Your task to perform on an android device: Go to Yahoo.com Image 0: 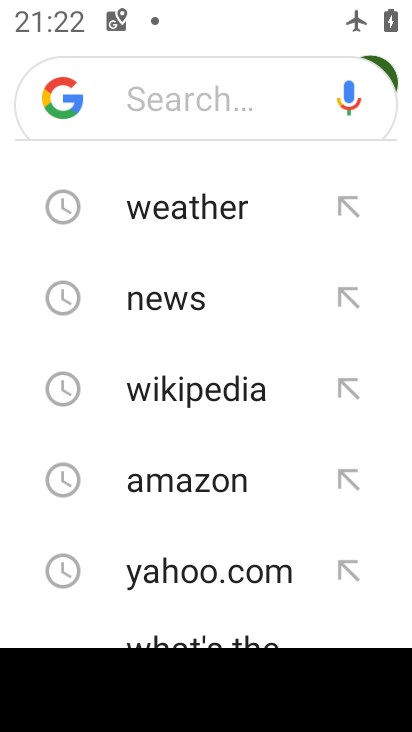
Step 0: press back button
Your task to perform on an android device: Go to Yahoo.com Image 1: 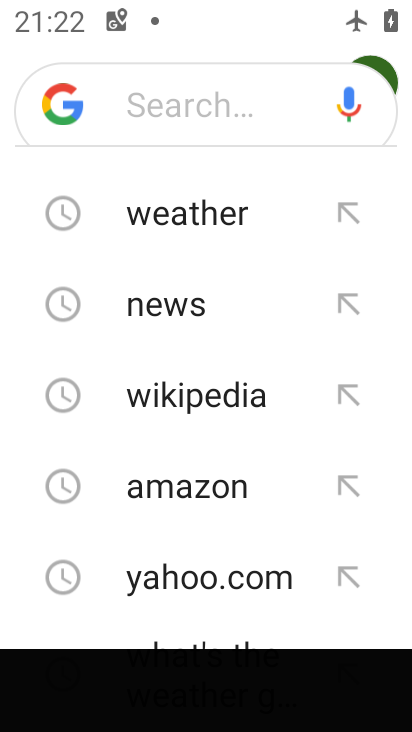
Step 1: press back button
Your task to perform on an android device: Go to Yahoo.com Image 2: 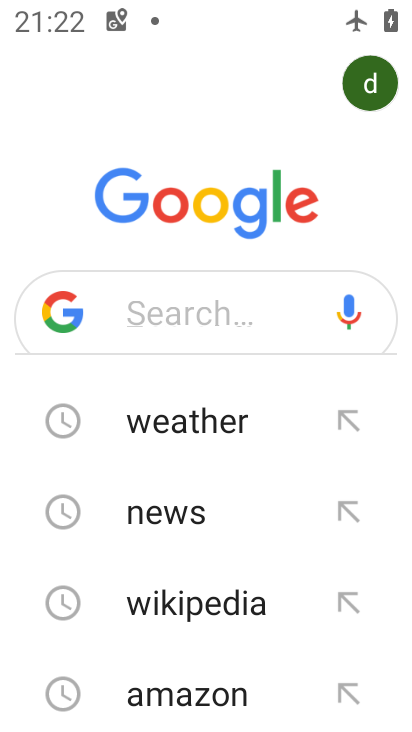
Step 2: press back button
Your task to perform on an android device: Go to Yahoo.com Image 3: 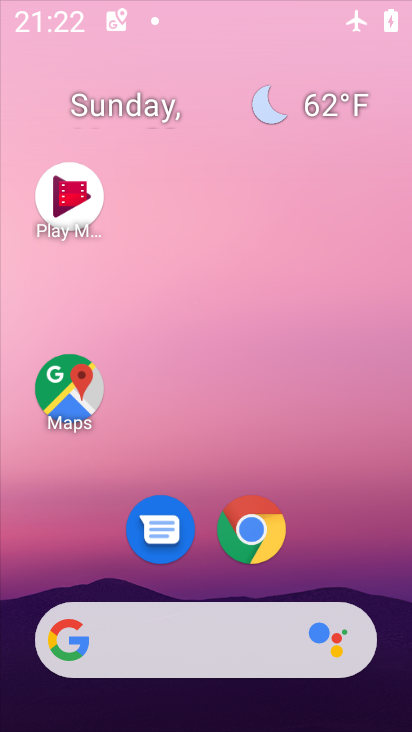
Step 3: press back button
Your task to perform on an android device: Go to Yahoo.com Image 4: 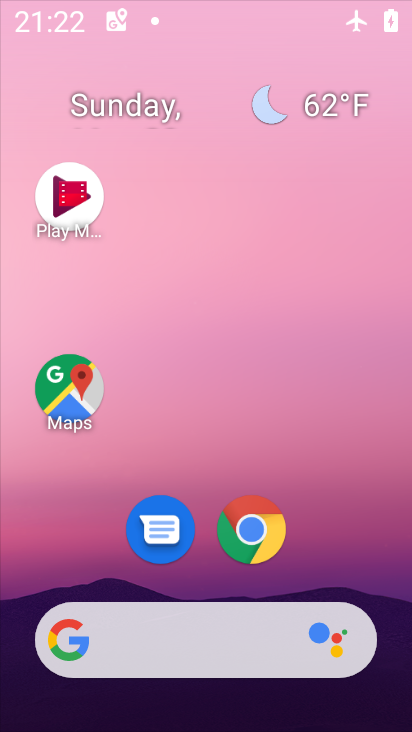
Step 4: press home button
Your task to perform on an android device: Go to Yahoo.com Image 5: 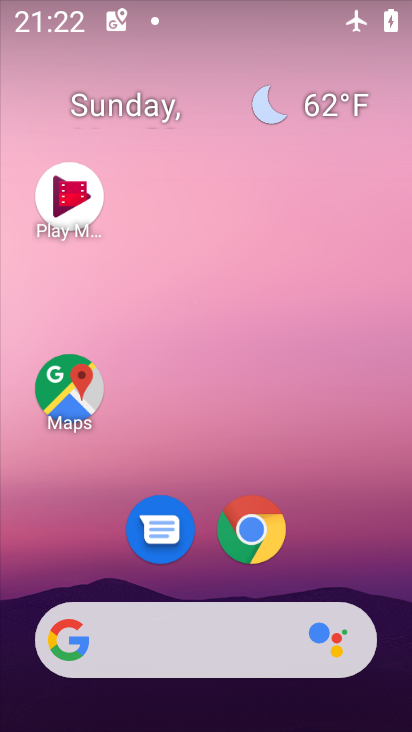
Step 5: drag from (230, 670) to (198, 149)
Your task to perform on an android device: Go to Yahoo.com Image 6: 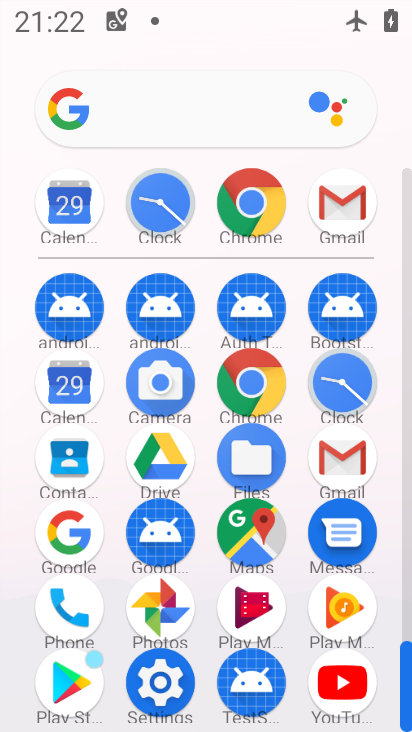
Step 6: click (246, 212)
Your task to perform on an android device: Go to Yahoo.com Image 7: 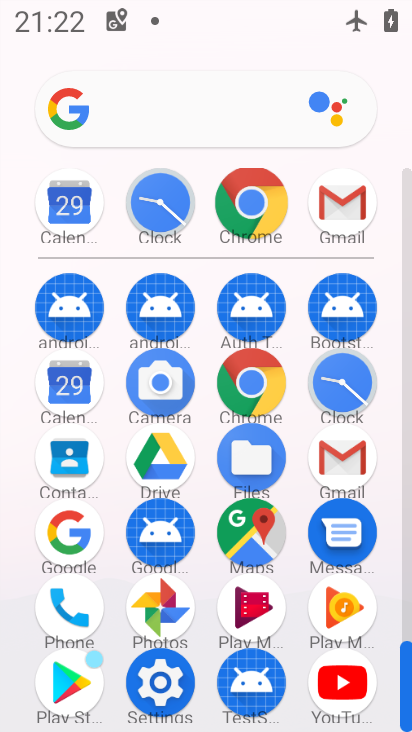
Step 7: click (247, 211)
Your task to perform on an android device: Go to Yahoo.com Image 8: 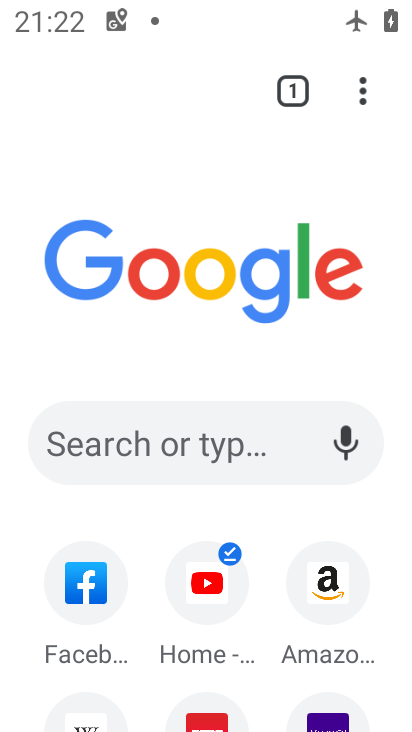
Step 8: drag from (289, 570) to (252, 299)
Your task to perform on an android device: Go to Yahoo.com Image 9: 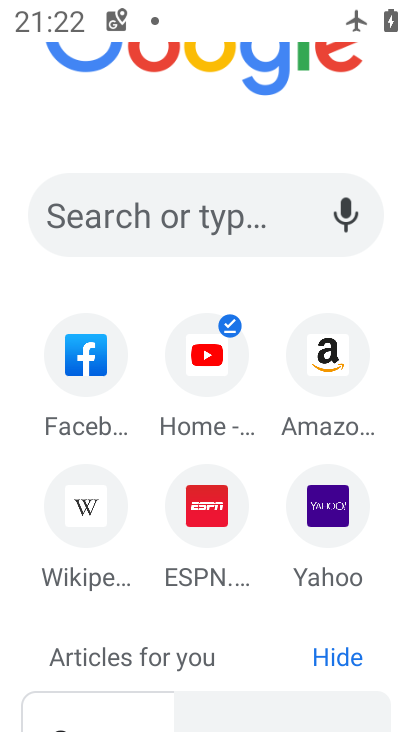
Step 9: drag from (279, 503) to (259, 187)
Your task to perform on an android device: Go to Yahoo.com Image 10: 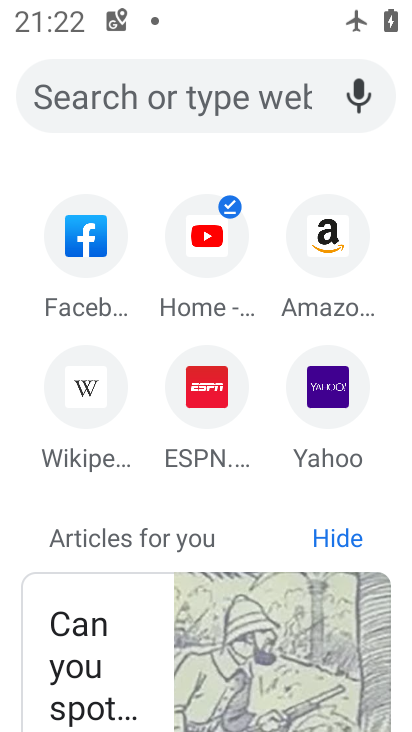
Step 10: drag from (235, 432) to (214, 144)
Your task to perform on an android device: Go to Yahoo.com Image 11: 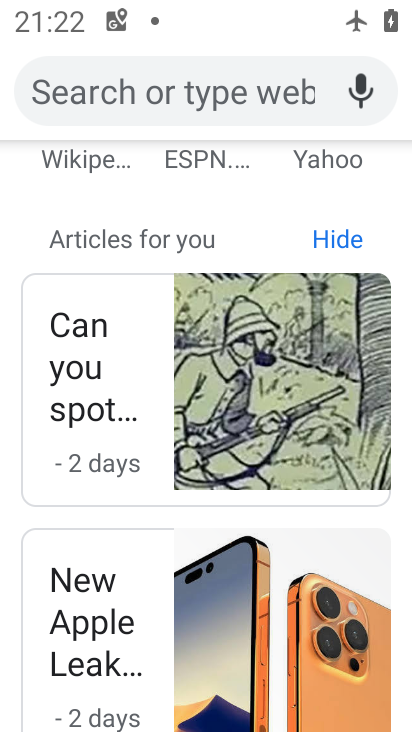
Step 11: drag from (261, 232) to (258, 509)
Your task to perform on an android device: Go to Yahoo.com Image 12: 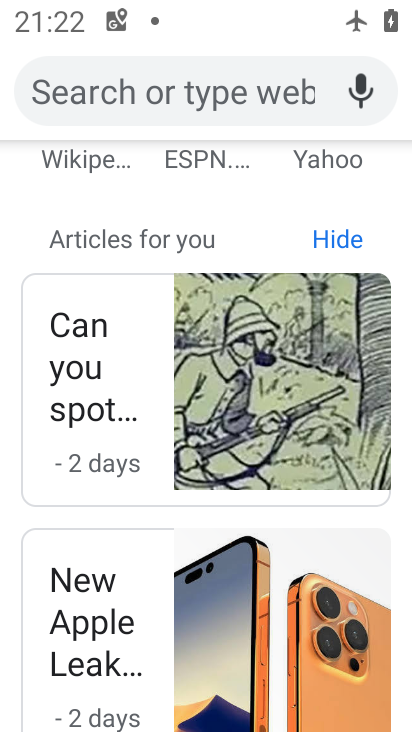
Step 12: drag from (221, 276) to (221, 525)
Your task to perform on an android device: Go to Yahoo.com Image 13: 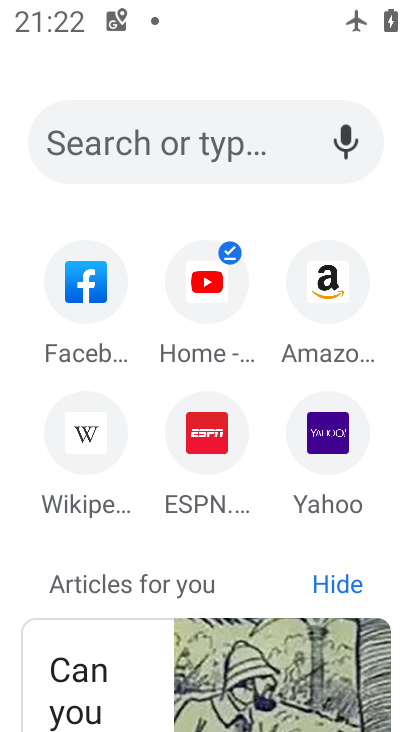
Step 13: click (328, 421)
Your task to perform on an android device: Go to Yahoo.com Image 14: 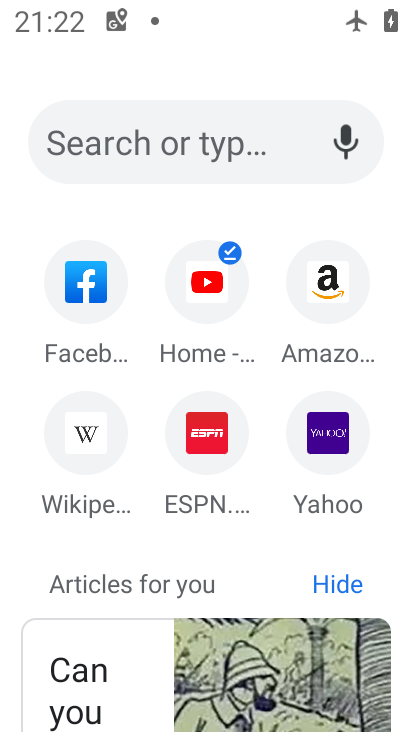
Step 14: click (328, 421)
Your task to perform on an android device: Go to Yahoo.com Image 15: 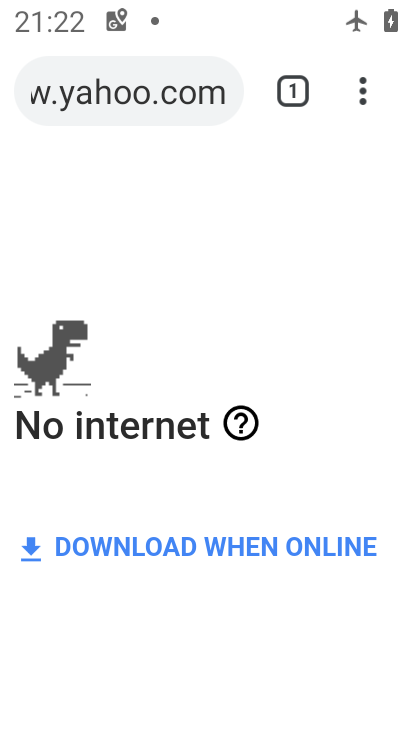
Step 15: task complete